Your task to perform on an android device: open chrome privacy settings Image 0: 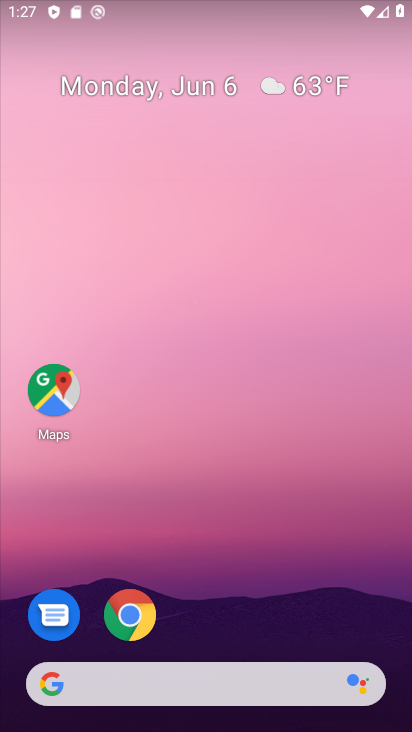
Step 0: click (149, 637)
Your task to perform on an android device: open chrome privacy settings Image 1: 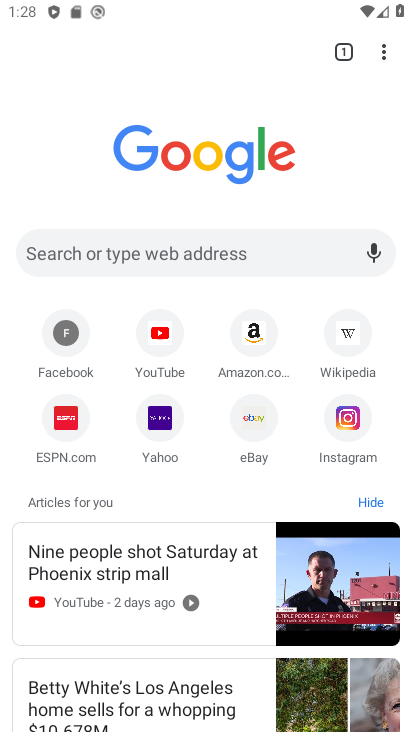
Step 1: drag from (393, 54) to (290, 489)
Your task to perform on an android device: open chrome privacy settings Image 2: 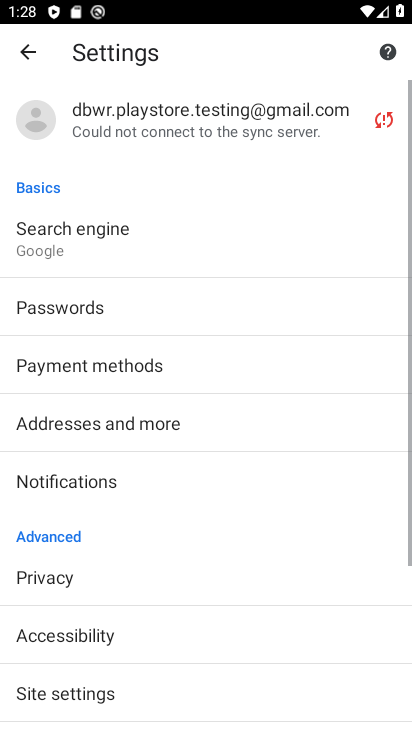
Step 2: drag from (224, 654) to (291, 369)
Your task to perform on an android device: open chrome privacy settings Image 3: 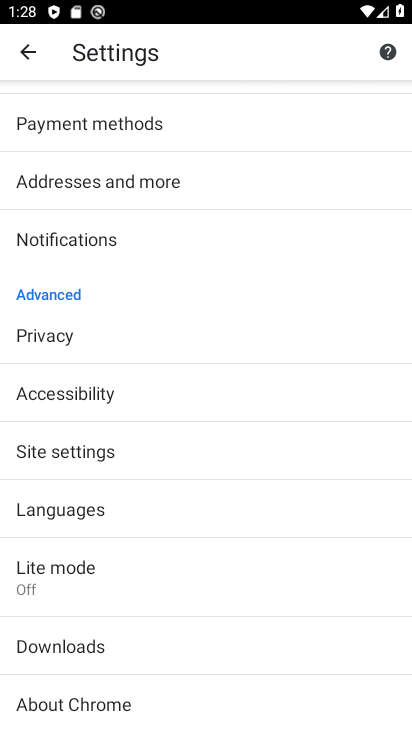
Step 3: click (169, 308)
Your task to perform on an android device: open chrome privacy settings Image 4: 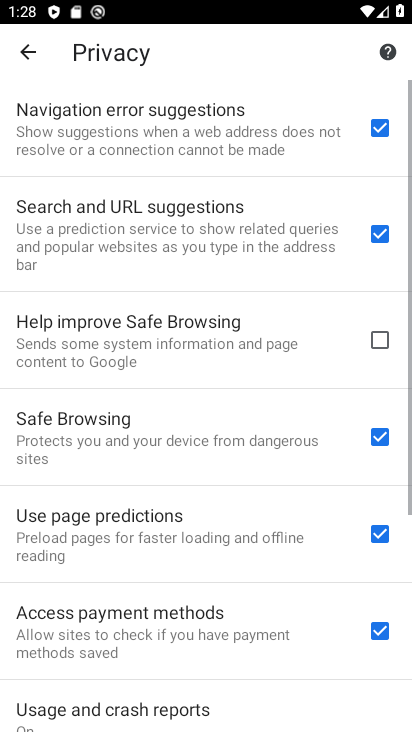
Step 4: task complete